Your task to perform on an android device: What's on my calendar today? Image 0: 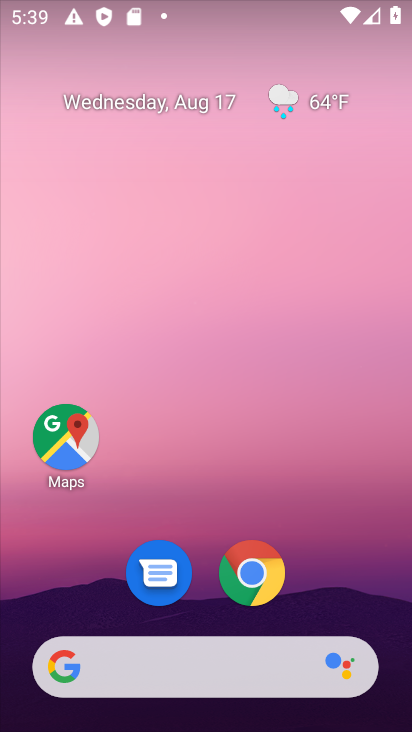
Step 0: drag from (319, 576) to (357, 48)
Your task to perform on an android device: What's on my calendar today? Image 1: 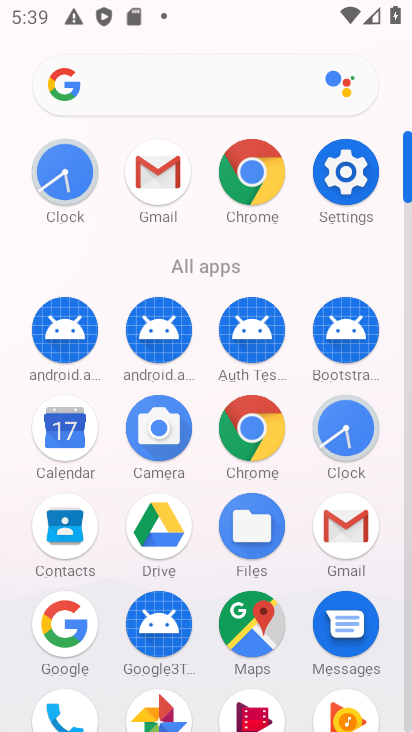
Step 1: click (50, 442)
Your task to perform on an android device: What's on my calendar today? Image 2: 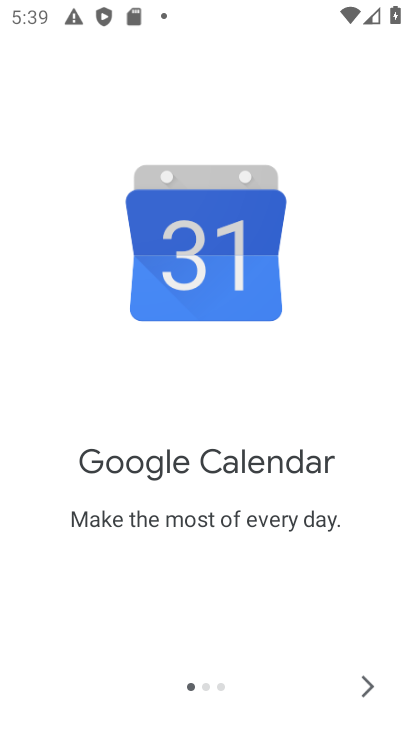
Step 2: click (363, 705)
Your task to perform on an android device: What's on my calendar today? Image 3: 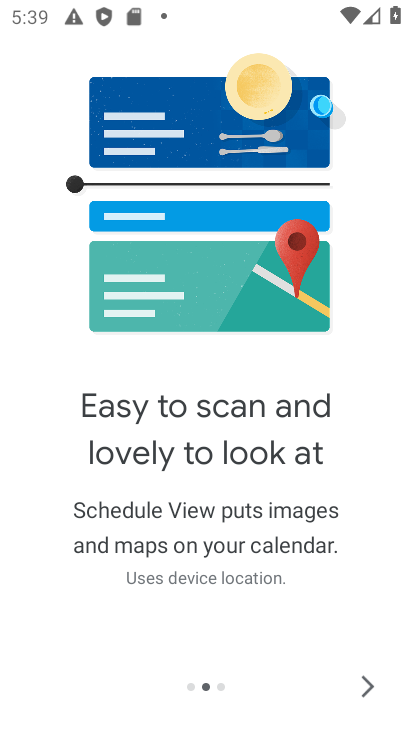
Step 3: click (363, 704)
Your task to perform on an android device: What's on my calendar today? Image 4: 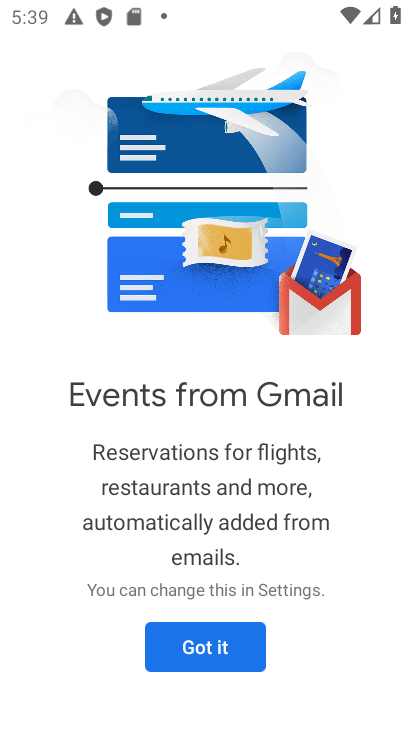
Step 4: click (240, 645)
Your task to perform on an android device: What's on my calendar today? Image 5: 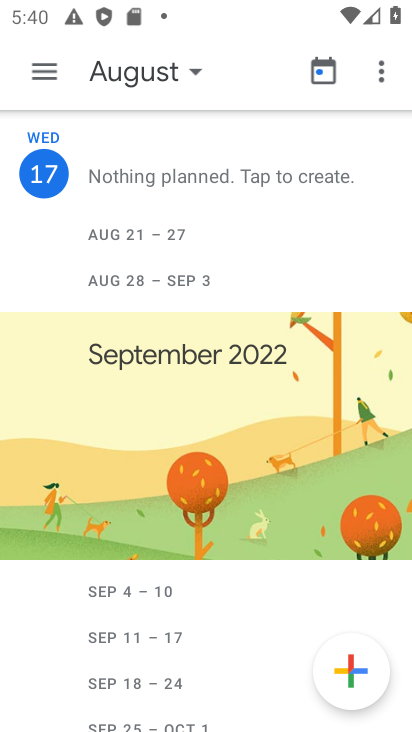
Step 5: click (81, 70)
Your task to perform on an android device: What's on my calendar today? Image 6: 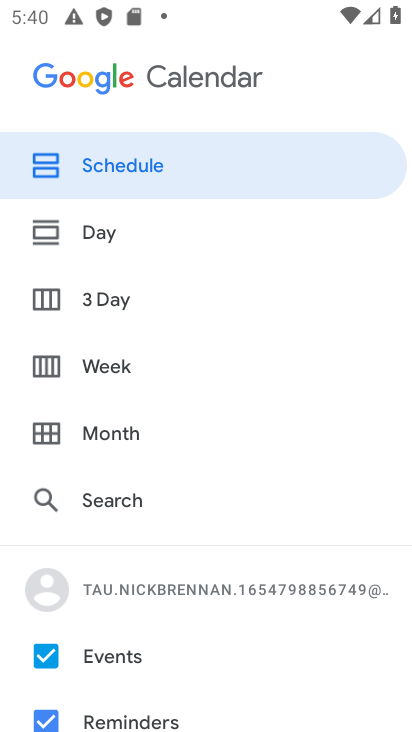
Step 6: press back button
Your task to perform on an android device: What's on my calendar today? Image 7: 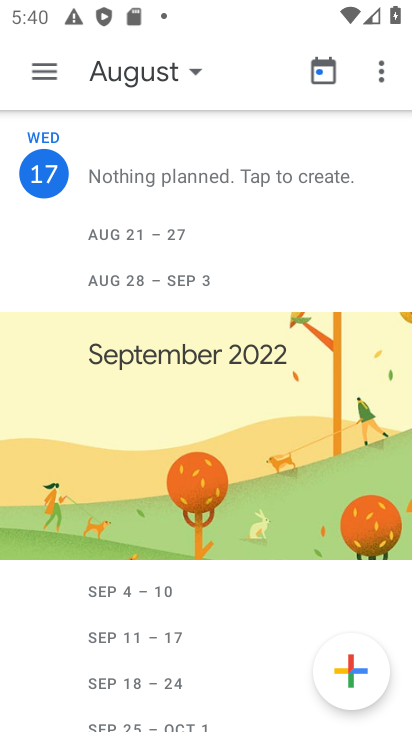
Step 7: click (120, 67)
Your task to perform on an android device: What's on my calendar today? Image 8: 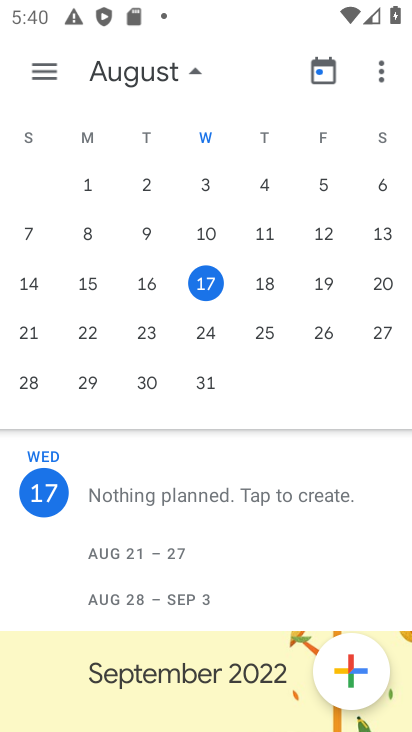
Step 8: task complete